Your task to perform on an android device: turn off priority inbox in the gmail app Image 0: 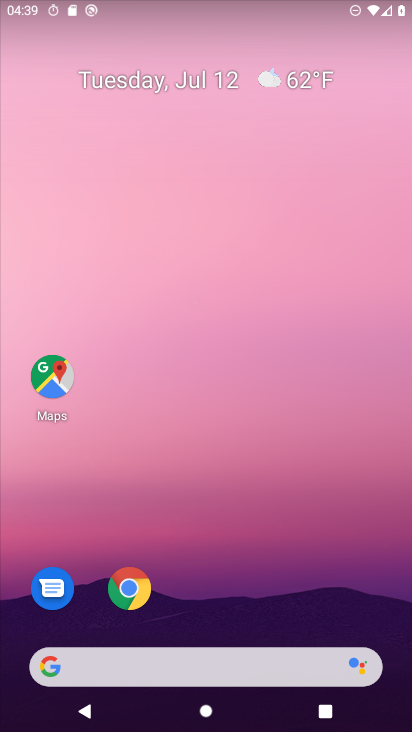
Step 0: drag from (244, 570) to (365, 6)
Your task to perform on an android device: turn off priority inbox in the gmail app Image 1: 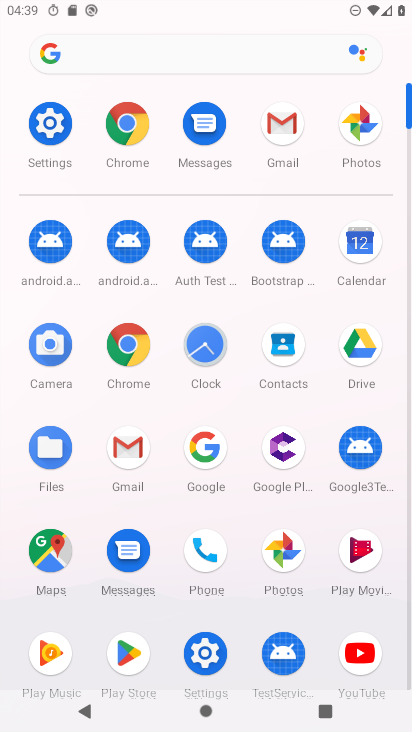
Step 1: click (139, 449)
Your task to perform on an android device: turn off priority inbox in the gmail app Image 2: 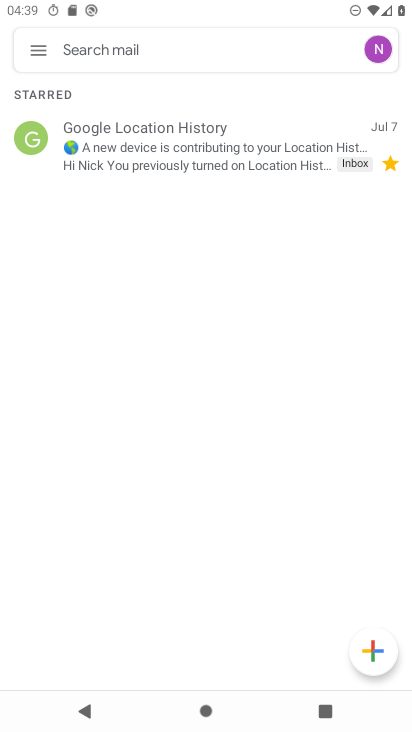
Step 2: click (31, 46)
Your task to perform on an android device: turn off priority inbox in the gmail app Image 3: 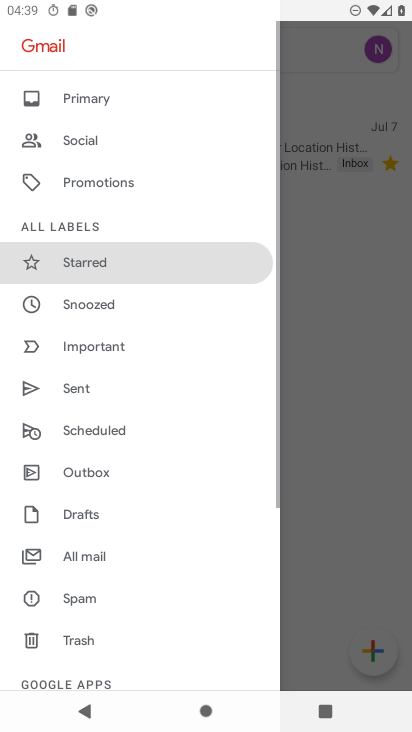
Step 3: drag from (76, 623) to (98, 266)
Your task to perform on an android device: turn off priority inbox in the gmail app Image 4: 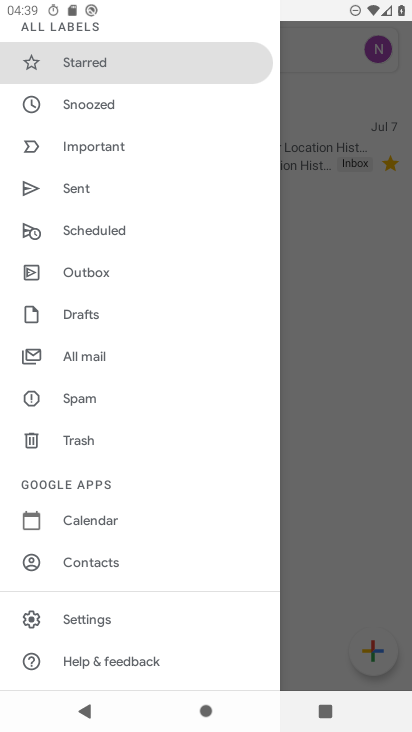
Step 4: click (87, 625)
Your task to perform on an android device: turn off priority inbox in the gmail app Image 5: 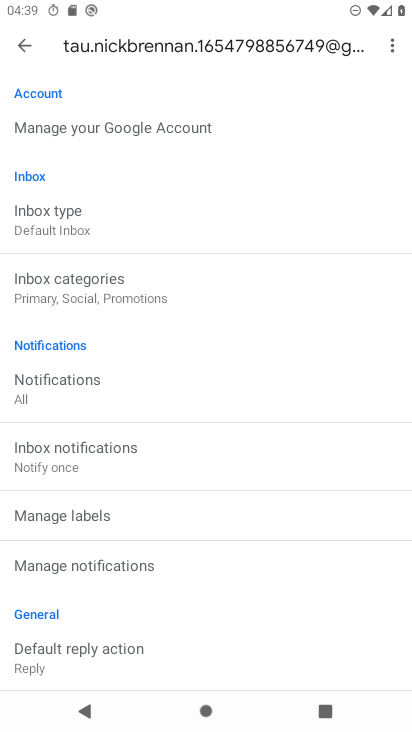
Step 5: click (65, 232)
Your task to perform on an android device: turn off priority inbox in the gmail app Image 6: 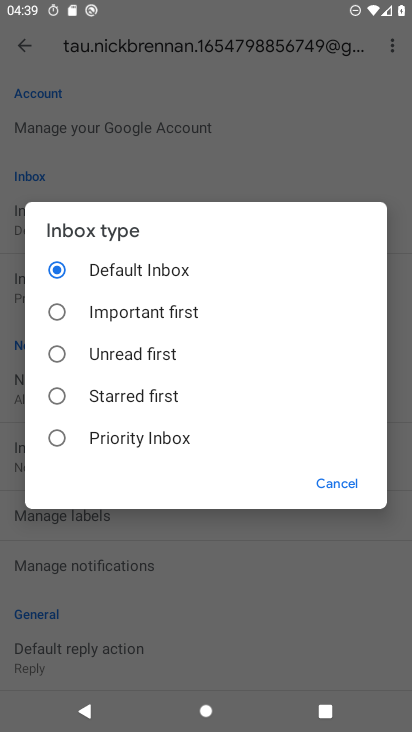
Step 6: click (152, 312)
Your task to perform on an android device: turn off priority inbox in the gmail app Image 7: 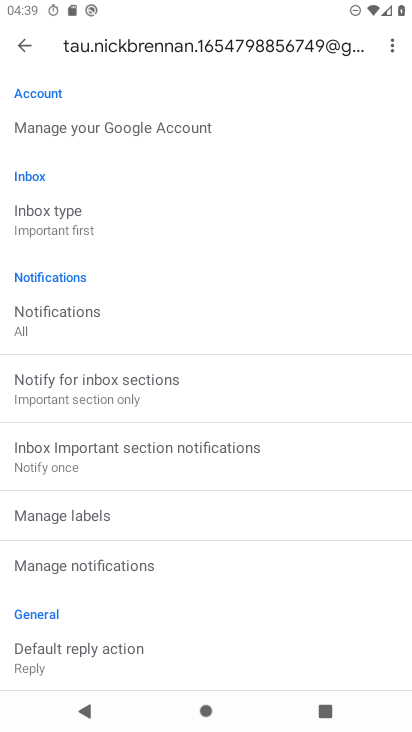
Step 7: task complete